Your task to perform on an android device: turn on showing notifications on the lock screen Image 0: 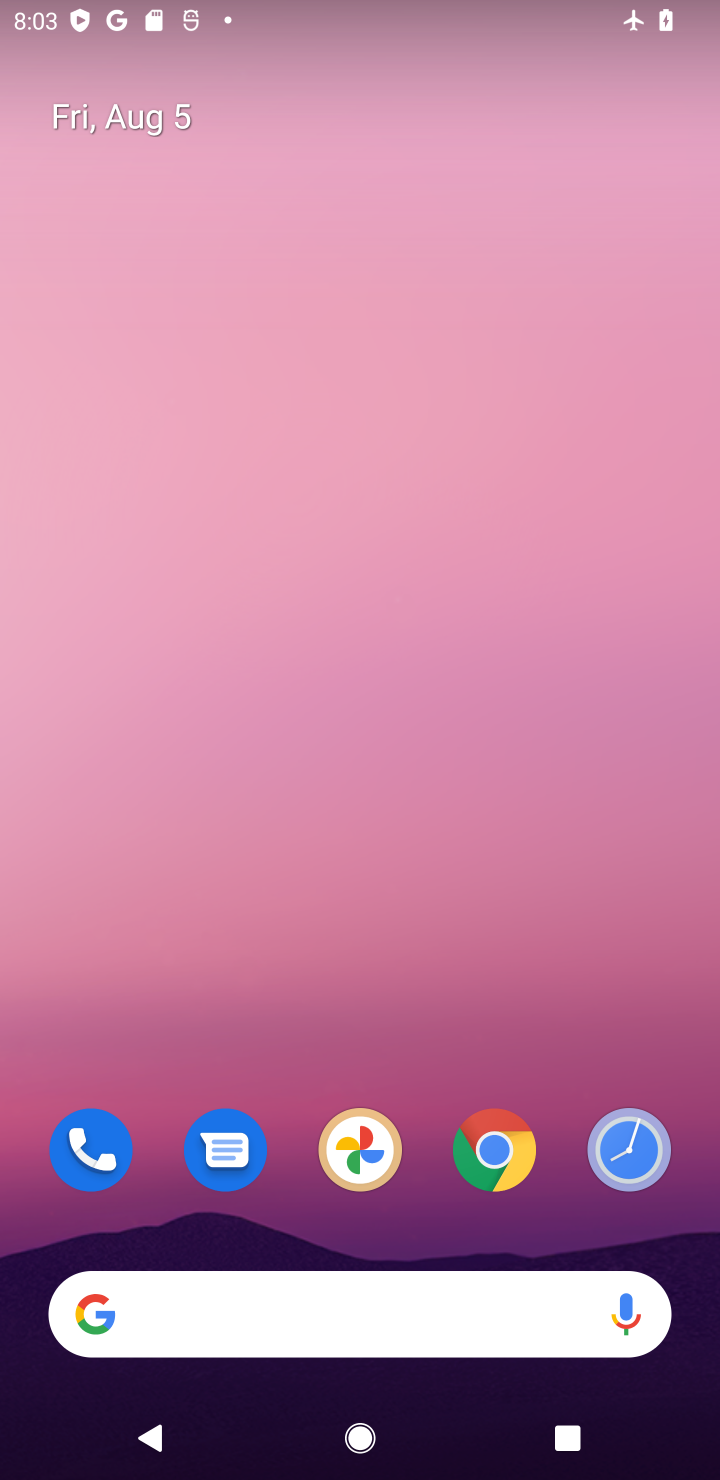
Step 0: drag from (377, 981) to (464, 311)
Your task to perform on an android device: turn on showing notifications on the lock screen Image 1: 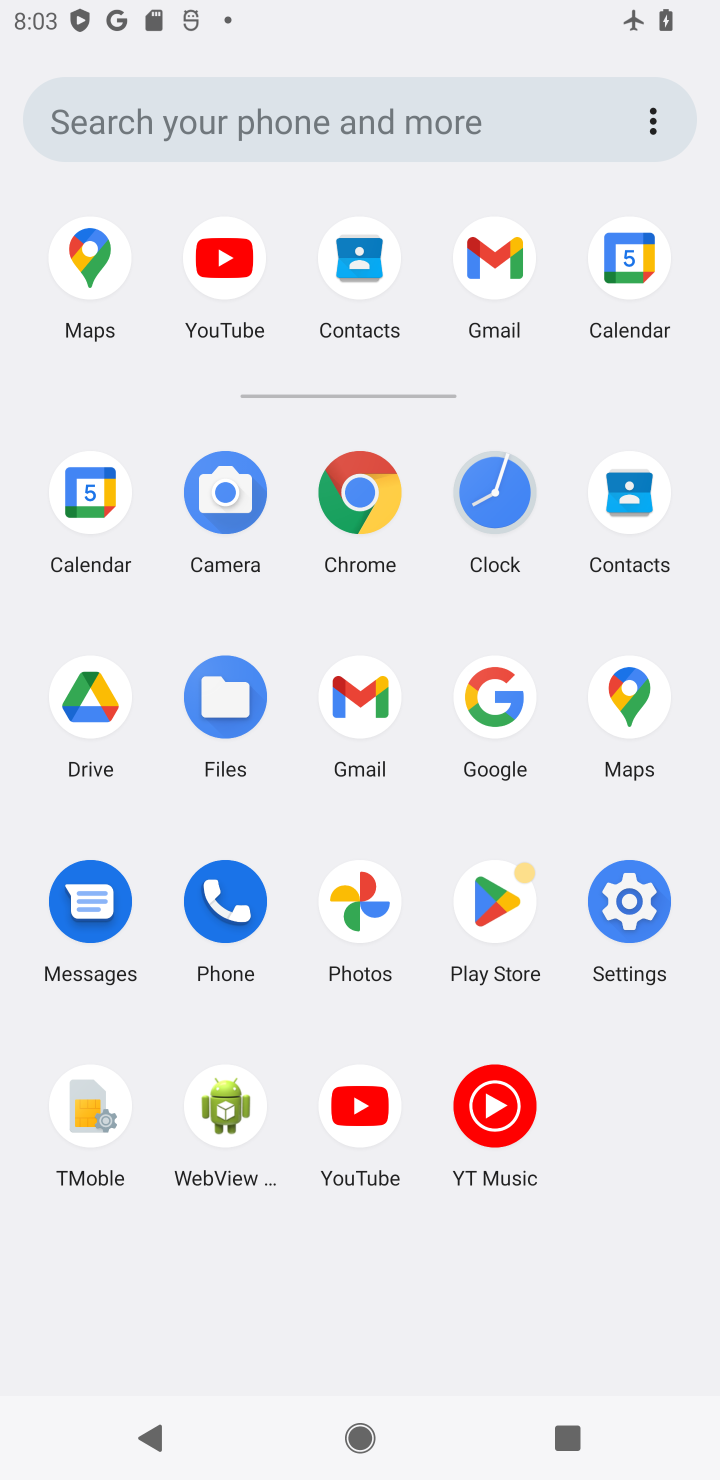
Step 1: click (662, 872)
Your task to perform on an android device: turn on showing notifications on the lock screen Image 2: 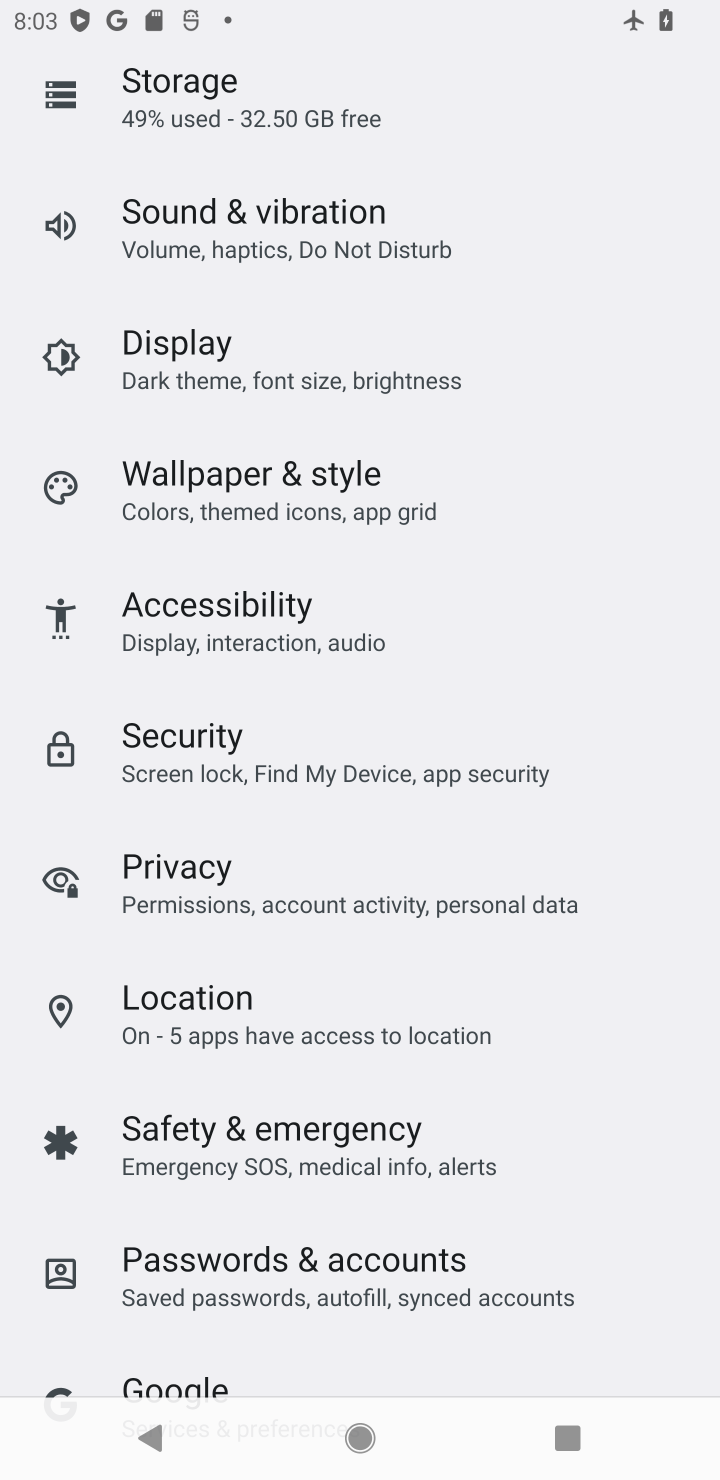
Step 2: drag from (555, 1127) to (620, 752)
Your task to perform on an android device: turn on showing notifications on the lock screen Image 3: 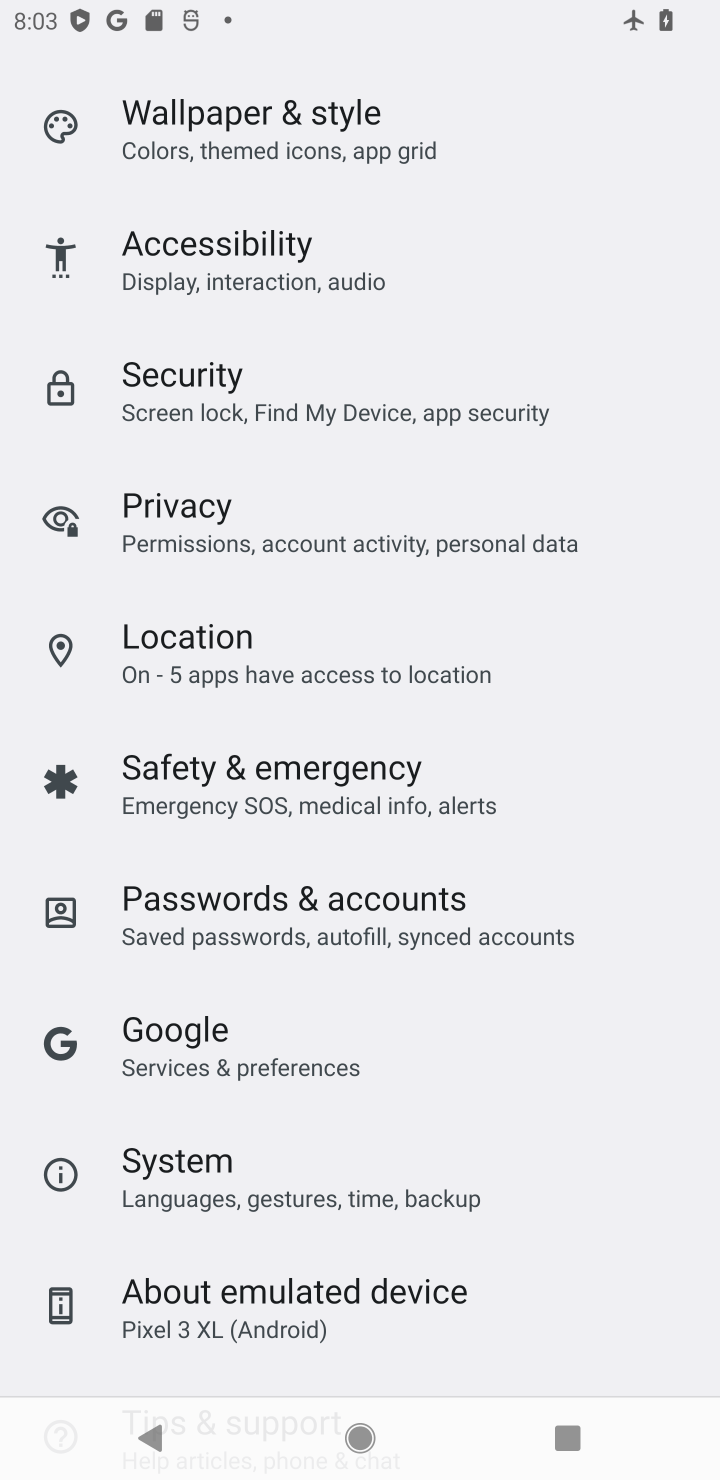
Step 3: drag from (604, 1110) to (619, 863)
Your task to perform on an android device: turn on showing notifications on the lock screen Image 4: 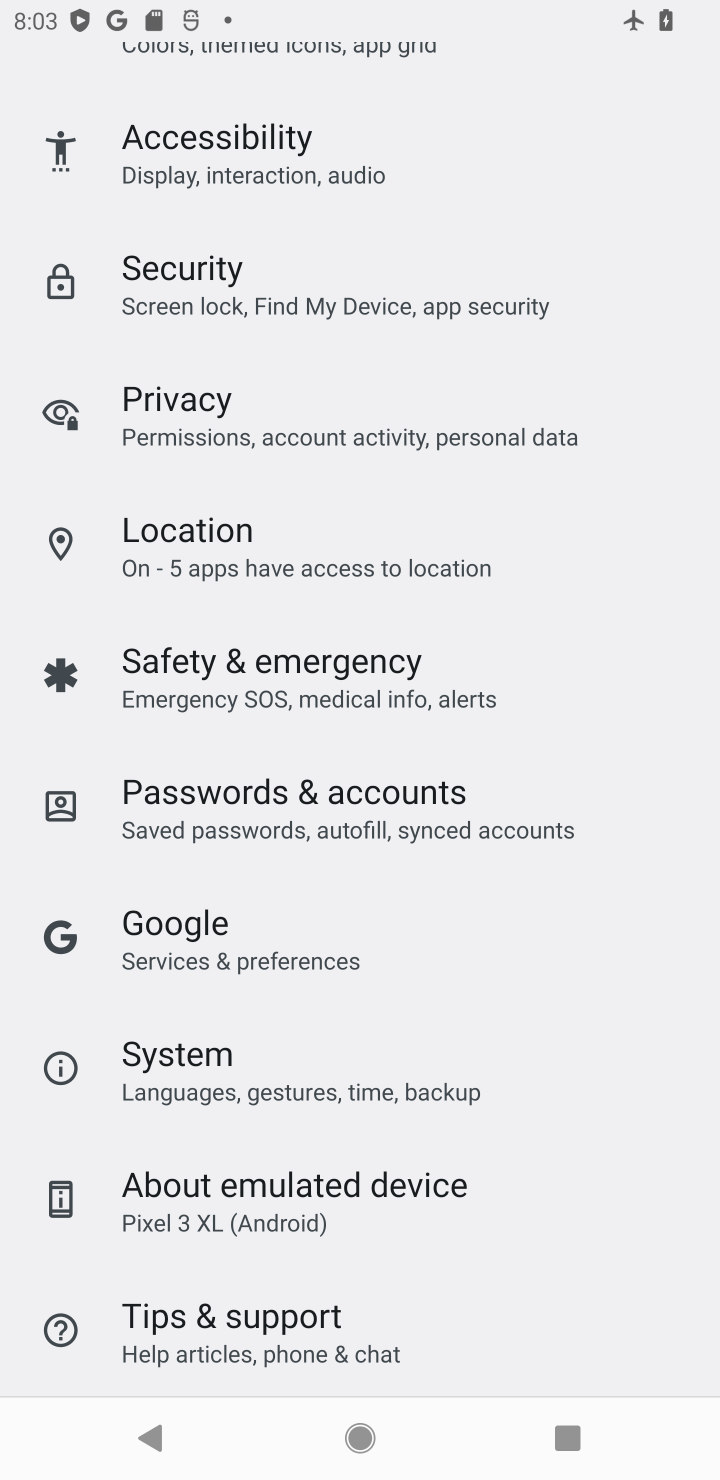
Step 4: drag from (639, 483) to (633, 807)
Your task to perform on an android device: turn on showing notifications on the lock screen Image 5: 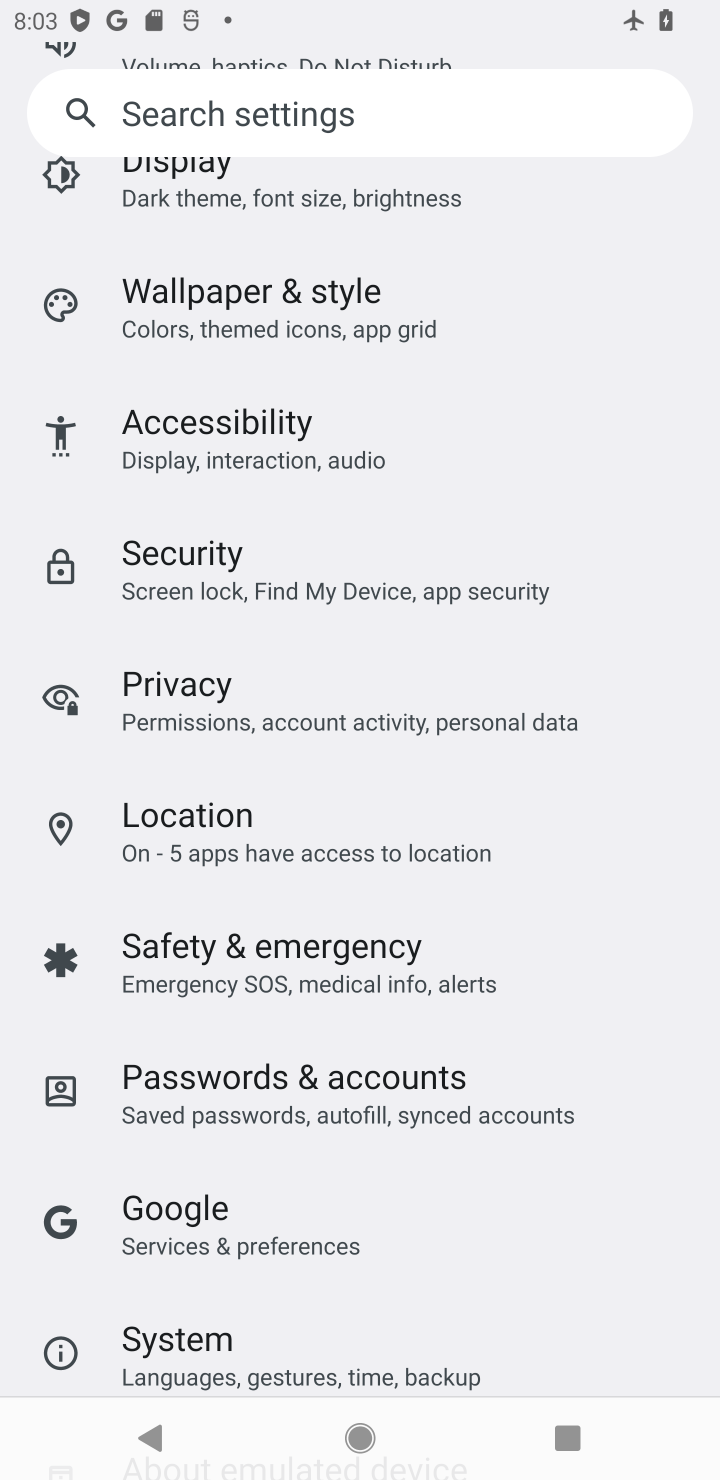
Step 5: drag from (646, 355) to (643, 763)
Your task to perform on an android device: turn on showing notifications on the lock screen Image 6: 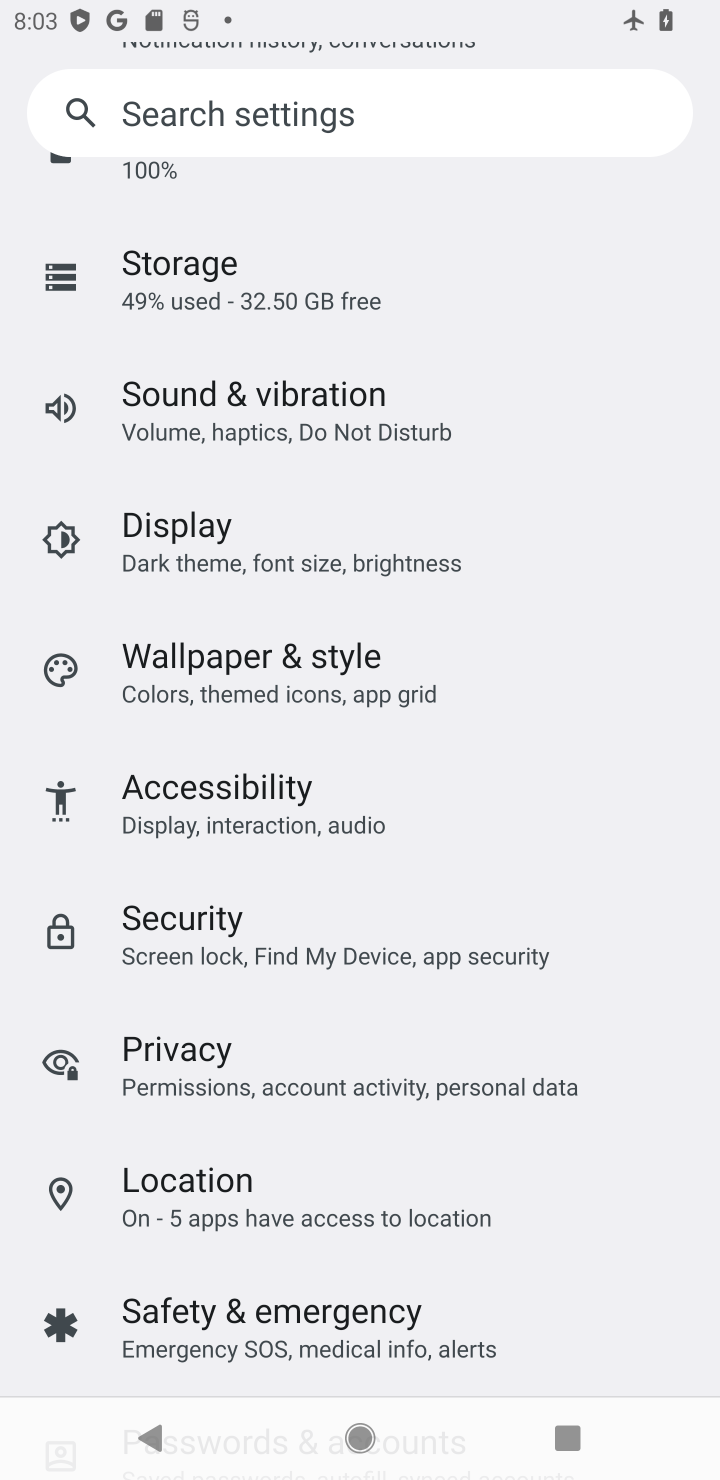
Step 6: drag from (610, 337) to (595, 797)
Your task to perform on an android device: turn on showing notifications on the lock screen Image 7: 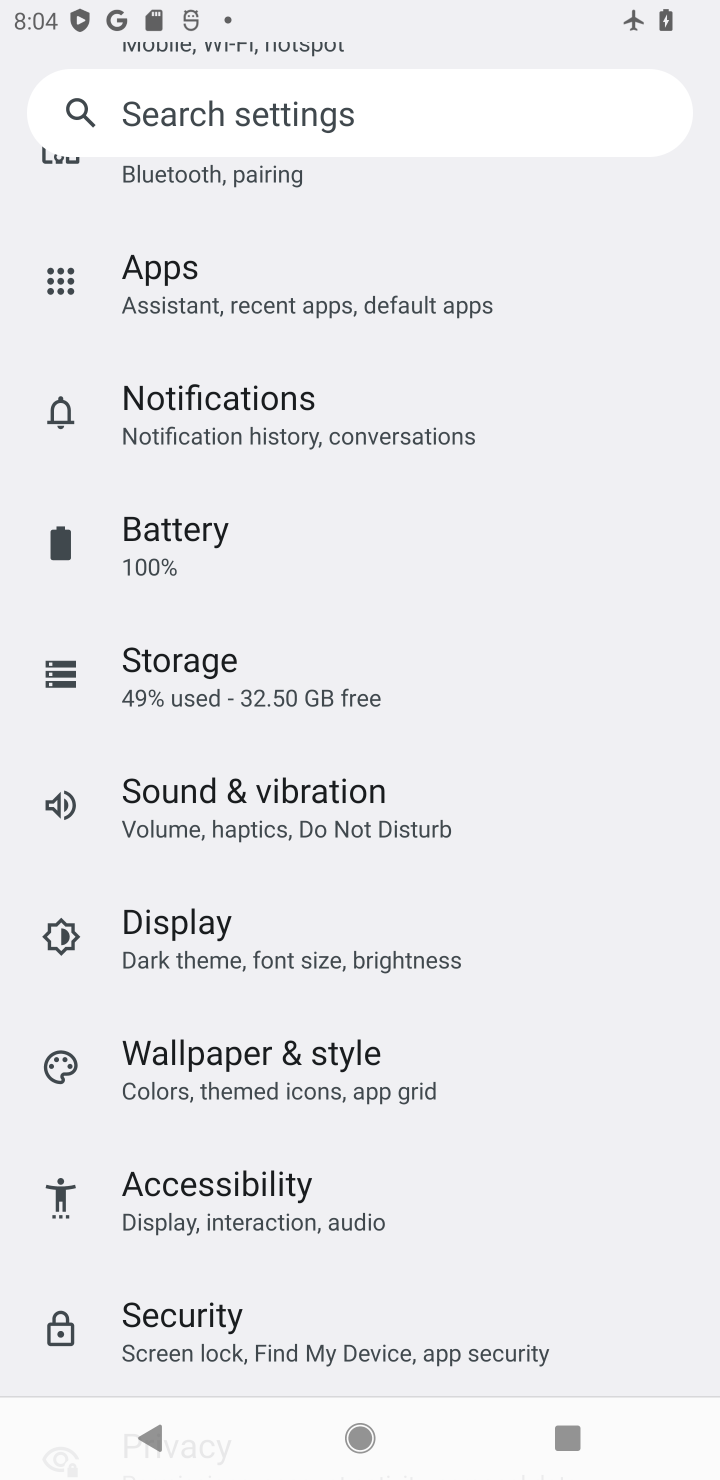
Step 7: drag from (556, 300) to (576, 830)
Your task to perform on an android device: turn on showing notifications on the lock screen Image 8: 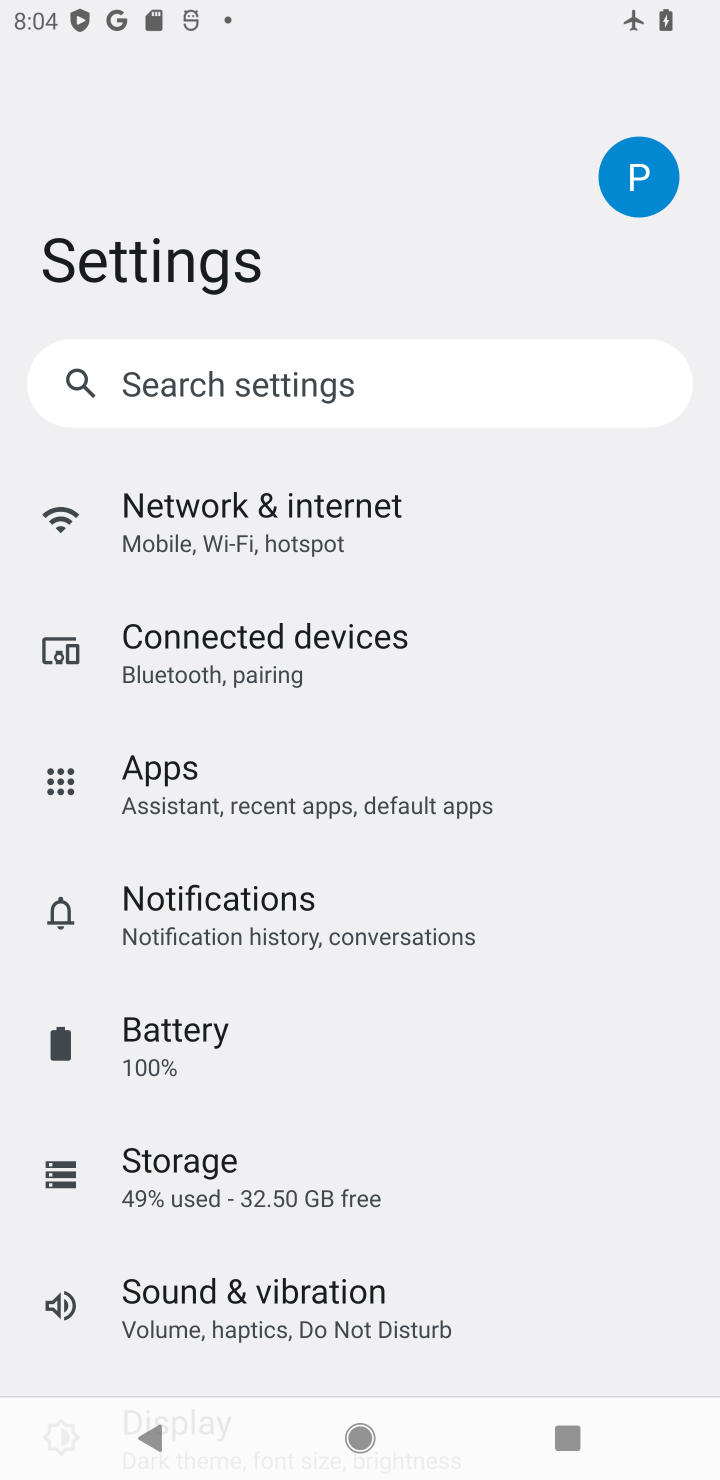
Step 8: click (494, 903)
Your task to perform on an android device: turn on showing notifications on the lock screen Image 9: 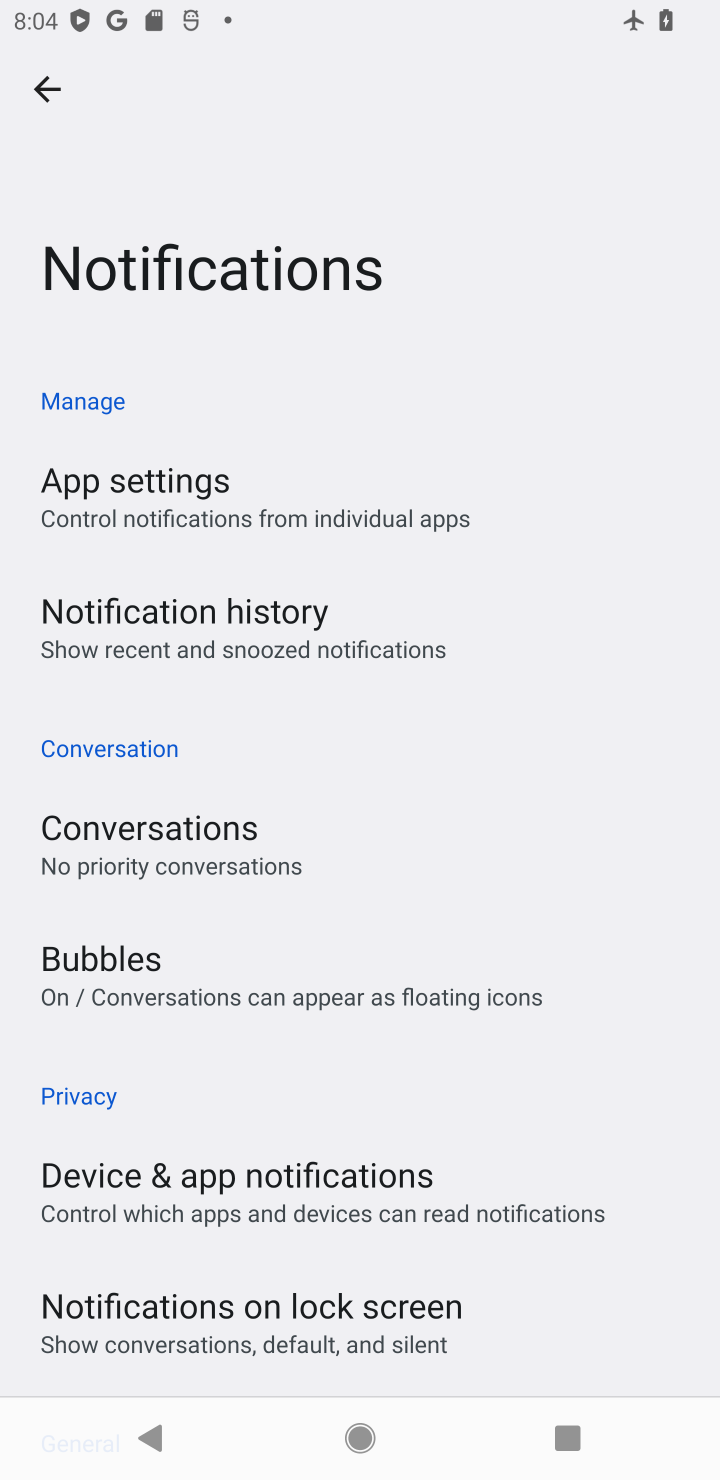
Step 9: drag from (518, 925) to (531, 591)
Your task to perform on an android device: turn on showing notifications on the lock screen Image 10: 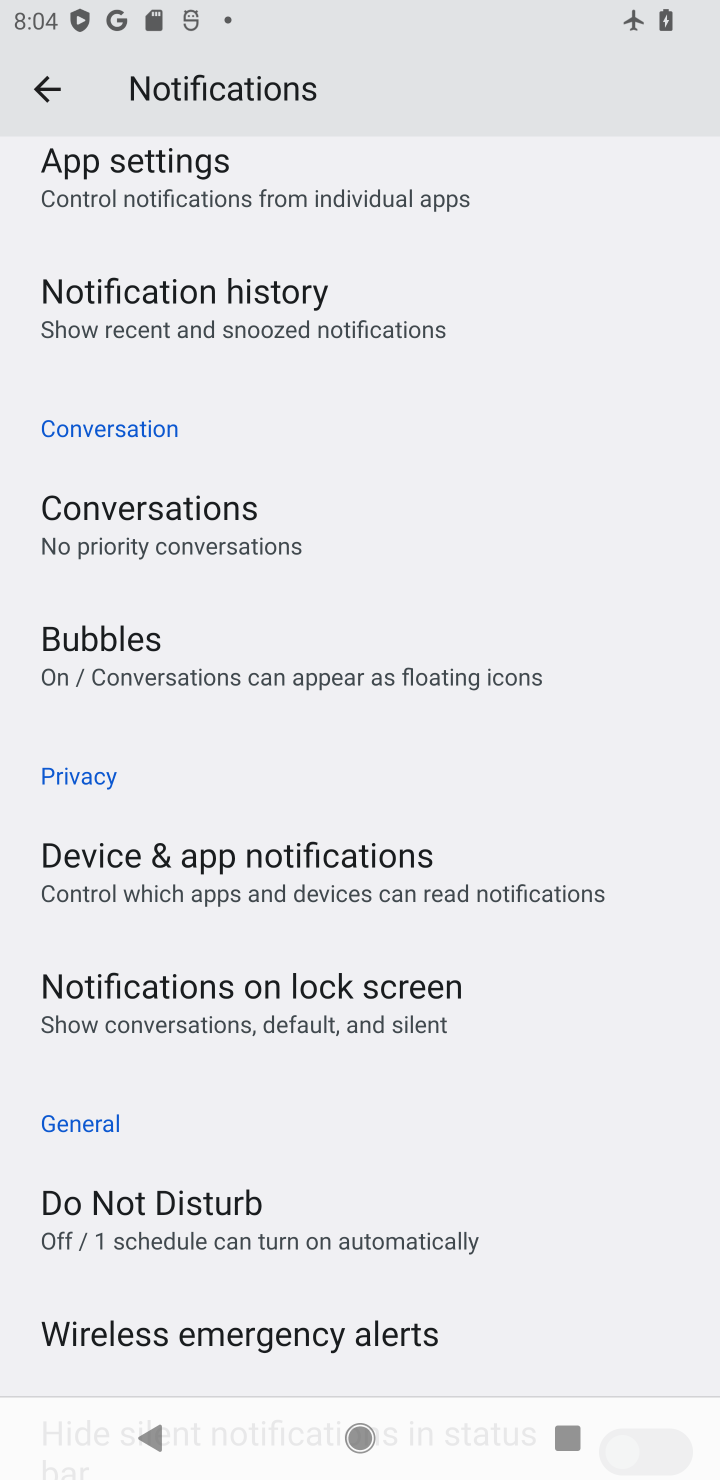
Step 10: drag from (523, 926) to (486, 597)
Your task to perform on an android device: turn on showing notifications on the lock screen Image 11: 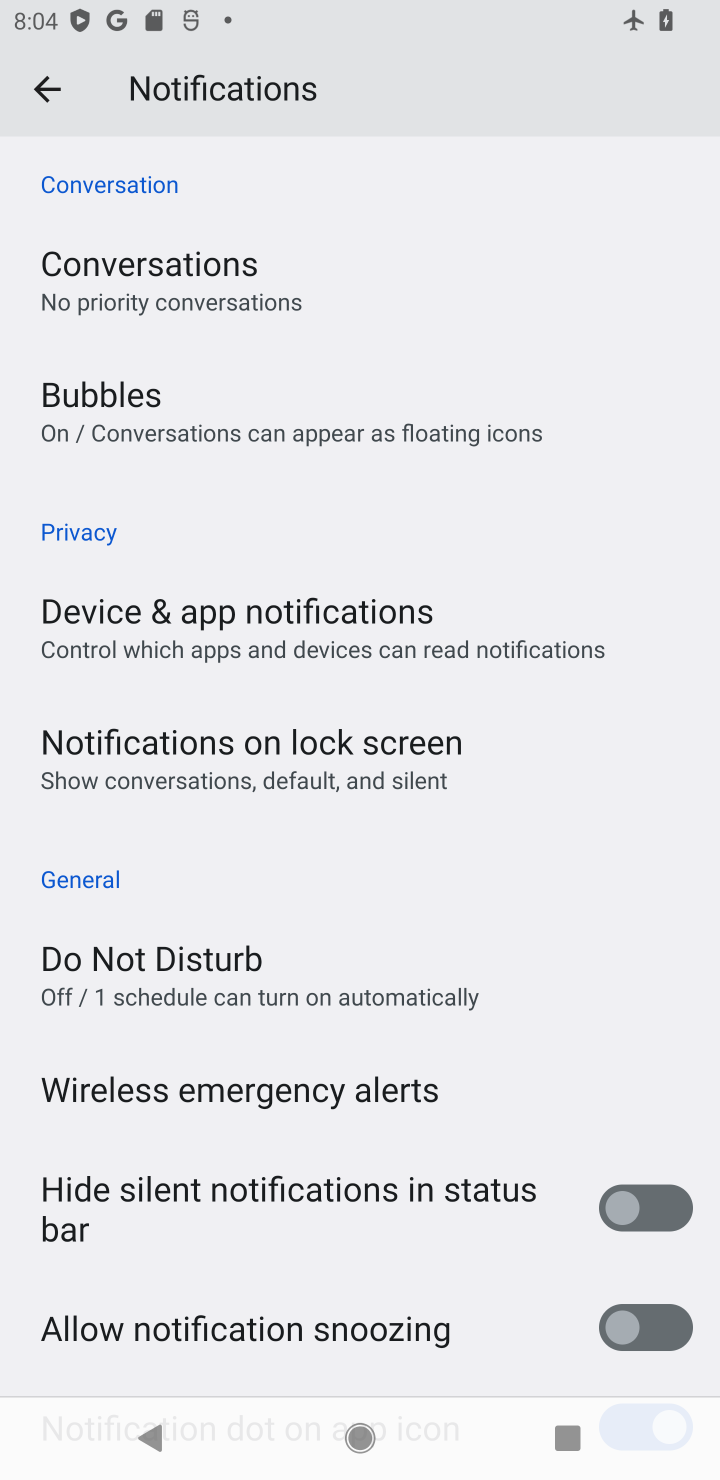
Step 11: click (384, 772)
Your task to perform on an android device: turn on showing notifications on the lock screen Image 12: 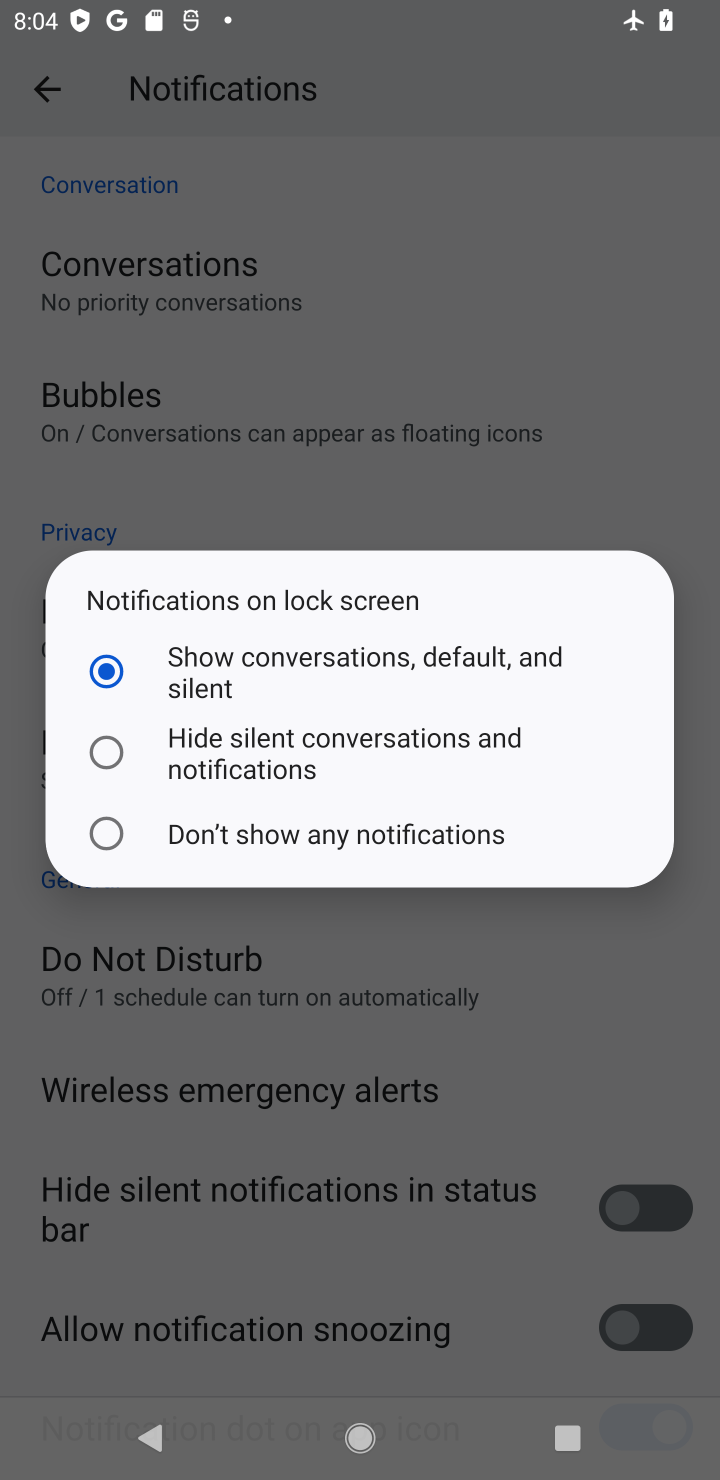
Step 12: task complete